Your task to perform on an android device: open app "Venmo" (install if not already installed) and go to login screen Image 0: 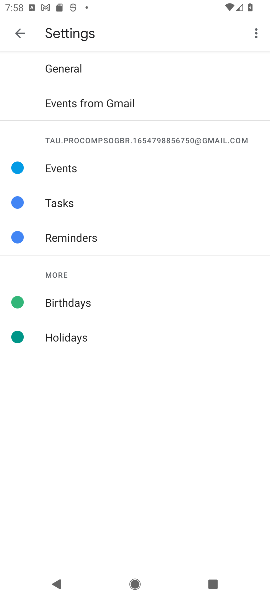
Step 0: press home button
Your task to perform on an android device: open app "Venmo" (install if not already installed) and go to login screen Image 1: 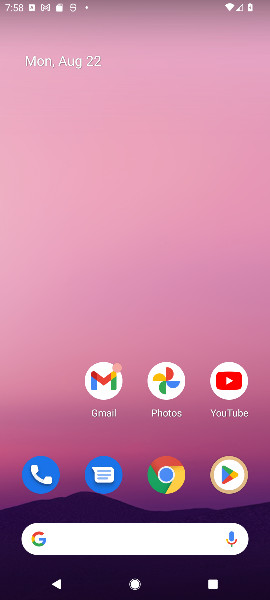
Step 1: click (229, 473)
Your task to perform on an android device: open app "Venmo" (install if not already installed) and go to login screen Image 2: 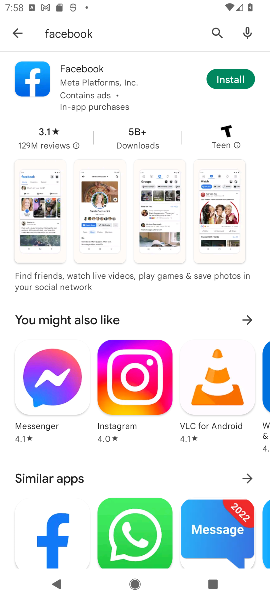
Step 2: click (93, 24)
Your task to perform on an android device: open app "Venmo" (install if not already installed) and go to login screen Image 3: 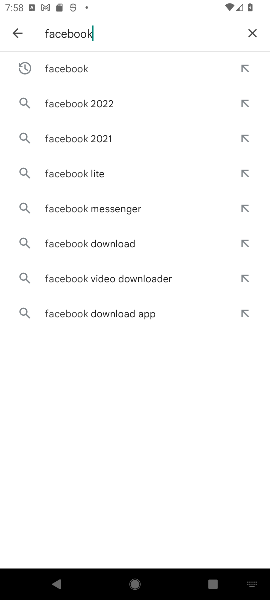
Step 3: click (243, 22)
Your task to perform on an android device: open app "Venmo" (install if not already installed) and go to login screen Image 4: 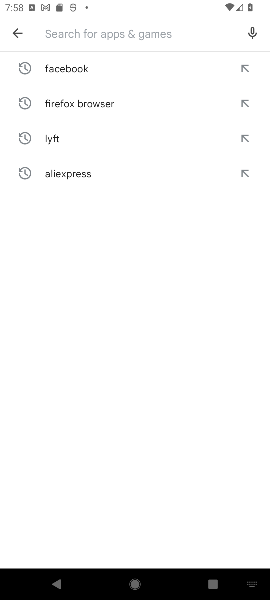
Step 4: type "venmo"
Your task to perform on an android device: open app "Venmo" (install if not already installed) and go to login screen Image 5: 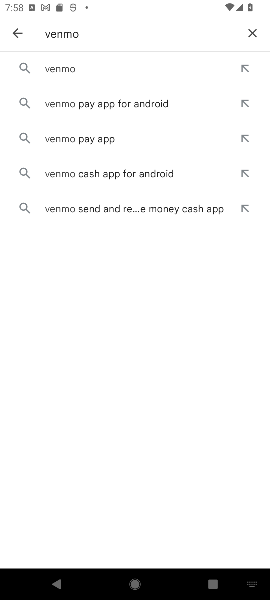
Step 5: click (79, 74)
Your task to perform on an android device: open app "Venmo" (install if not already installed) and go to login screen Image 6: 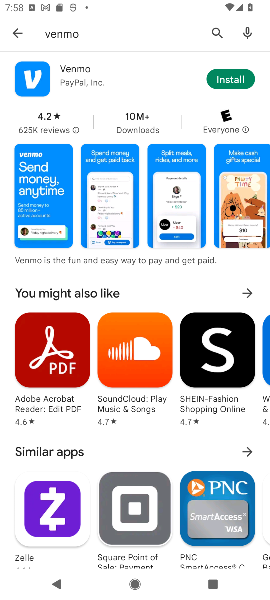
Step 6: click (238, 81)
Your task to perform on an android device: open app "Venmo" (install if not already installed) and go to login screen Image 7: 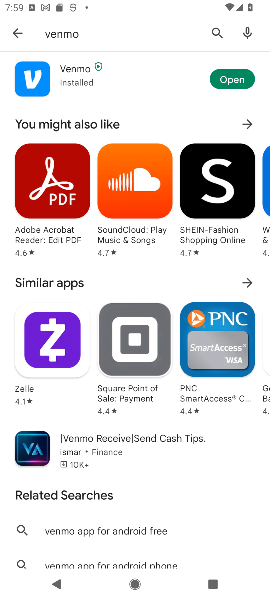
Step 7: click (231, 74)
Your task to perform on an android device: open app "Venmo" (install if not already installed) and go to login screen Image 8: 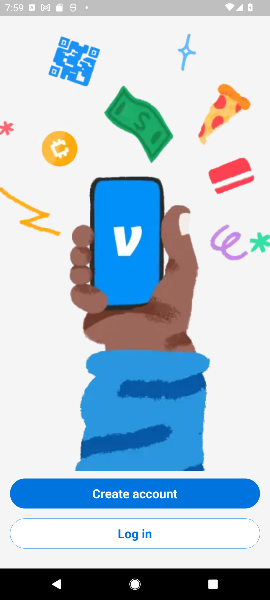
Step 8: click (139, 534)
Your task to perform on an android device: open app "Venmo" (install if not already installed) and go to login screen Image 9: 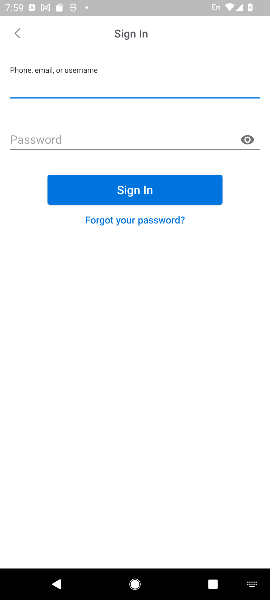
Step 9: task complete